Your task to perform on an android device: Go to ESPN.com Image 0: 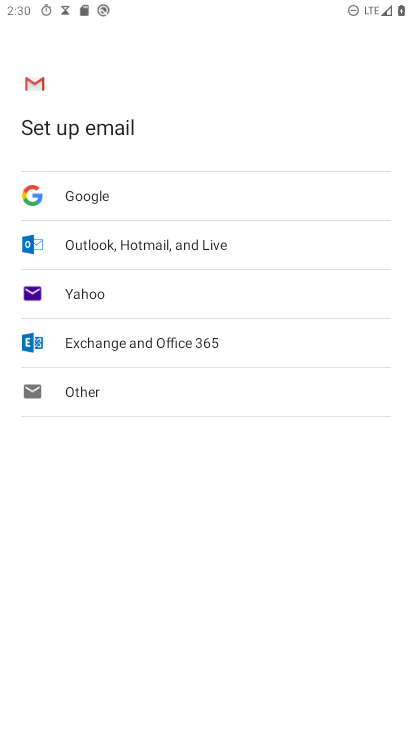
Step 0: press home button
Your task to perform on an android device: Go to ESPN.com Image 1: 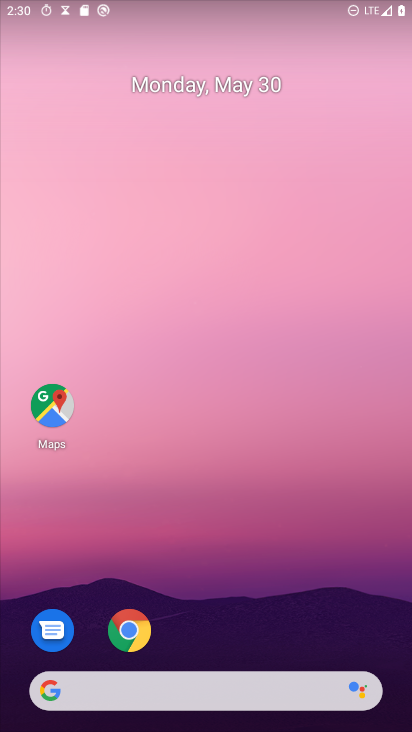
Step 1: drag from (191, 694) to (209, 145)
Your task to perform on an android device: Go to ESPN.com Image 2: 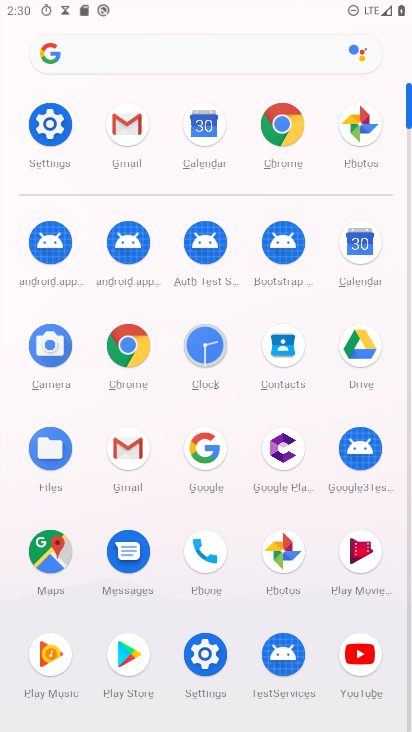
Step 2: click (297, 122)
Your task to perform on an android device: Go to ESPN.com Image 3: 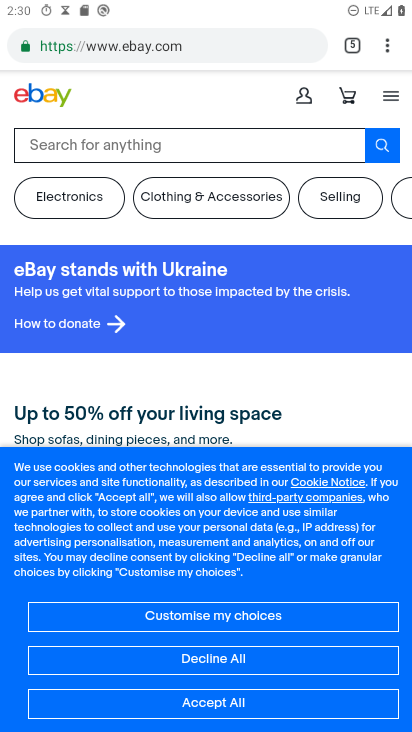
Step 3: click (123, 39)
Your task to perform on an android device: Go to ESPN.com Image 4: 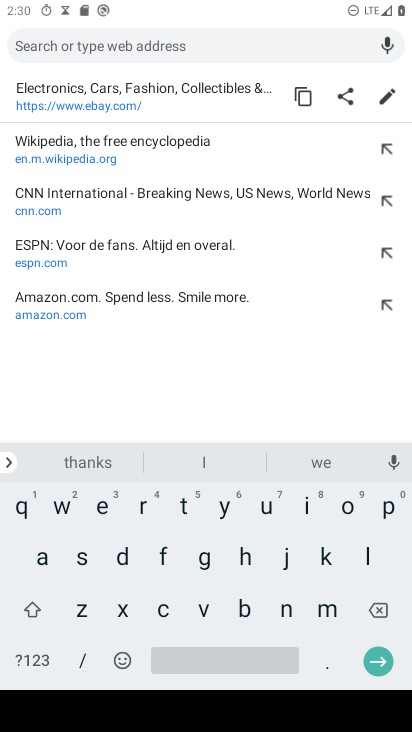
Step 4: click (99, 505)
Your task to perform on an android device: Go to ESPN.com Image 5: 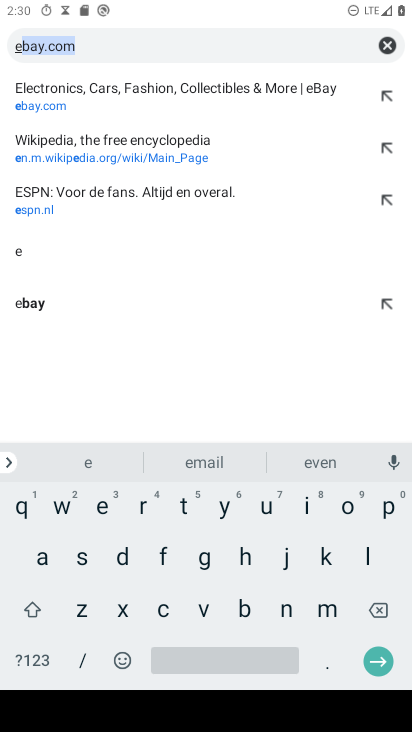
Step 5: click (81, 556)
Your task to perform on an android device: Go to ESPN.com Image 6: 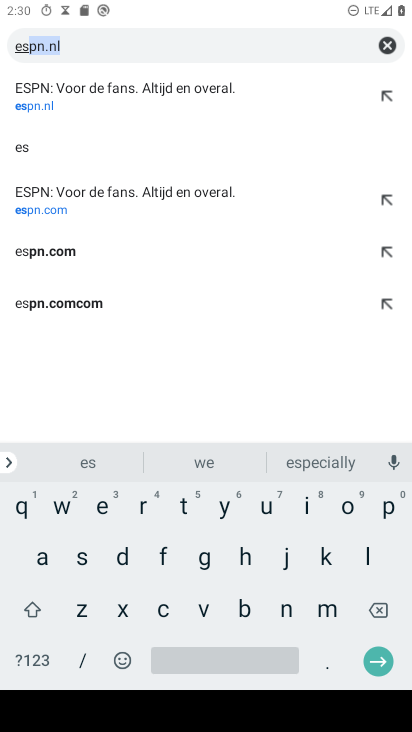
Step 6: click (142, 40)
Your task to perform on an android device: Go to ESPN.com Image 7: 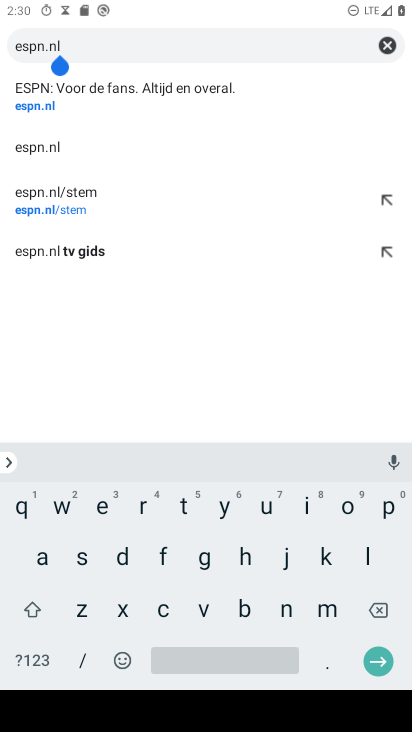
Step 7: click (376, 610)
Your task to perform on an android device: Go to ESPN.com Image 8: 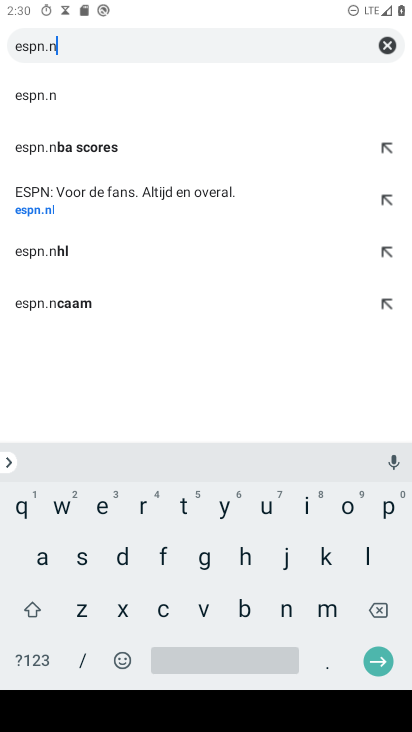
Step 8: click (376, 610)
Your task to perform on an android device: Go to ESPN.com Image 9: 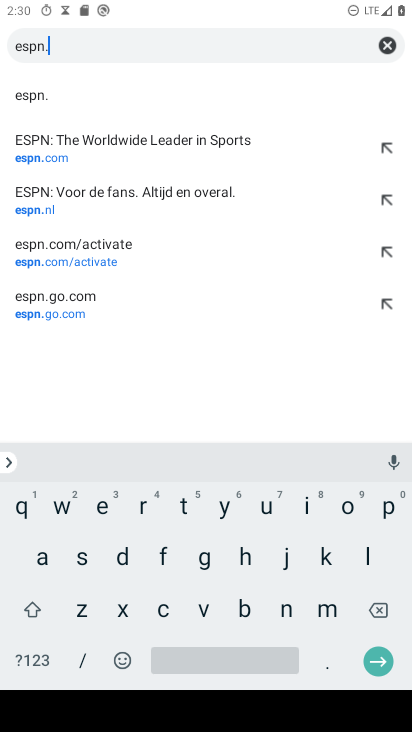
Step 9: click (164, 603)
Your task to perform on an android device: Go to ESPN.com Image 10: 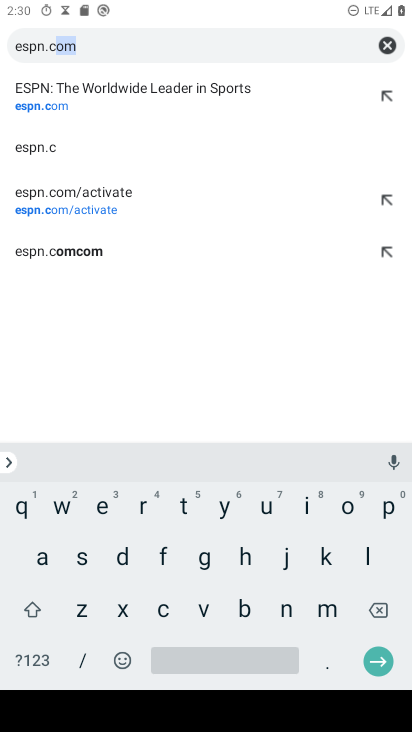
Step 10: click (345, 503)
Your task to perform on an android device: Go to ESPN.com Image 11: 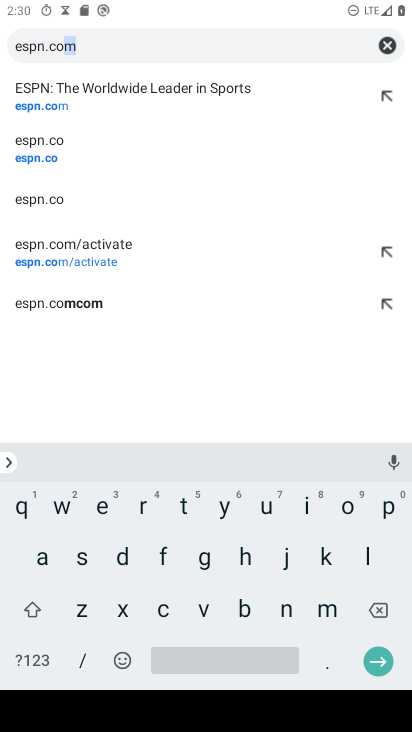
Step 11: click (117, 37)
Your task to perform on an android device: Go to ESPN.com Image 12: 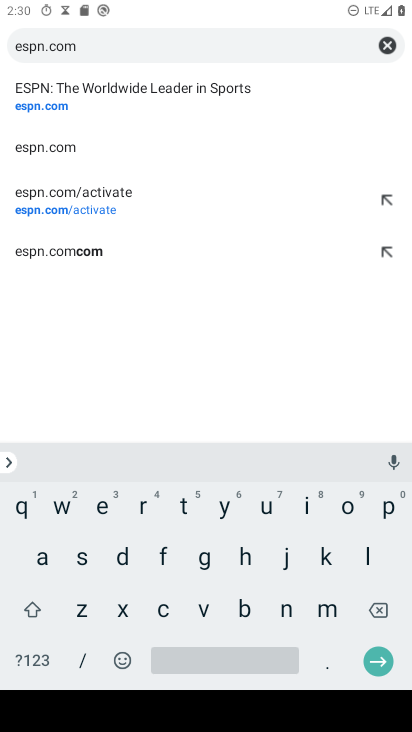
Step 12: click (380, 662)
Your task to perform on an android device: Go to ESPN.com Image 13: 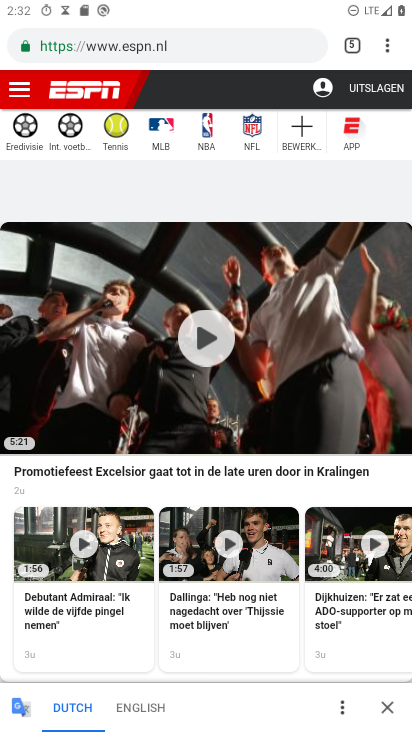
Step 13: task complete